Your task to perform on an android device: snooze an email in the gmail app Image 0: 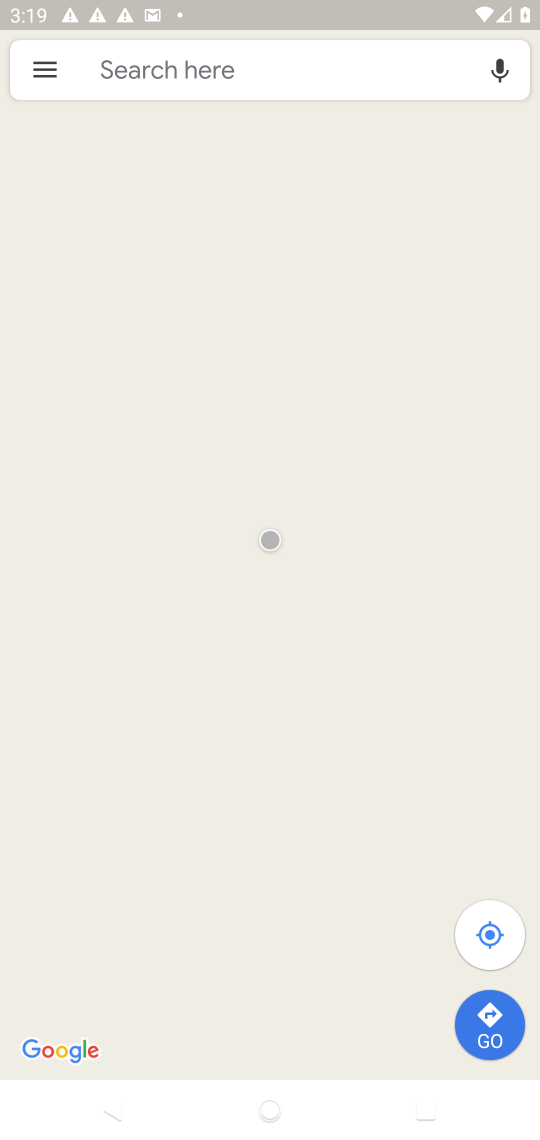
Step 0: press home button
Your task to perform on an android device: snooze an email in the gmail app Image 1: 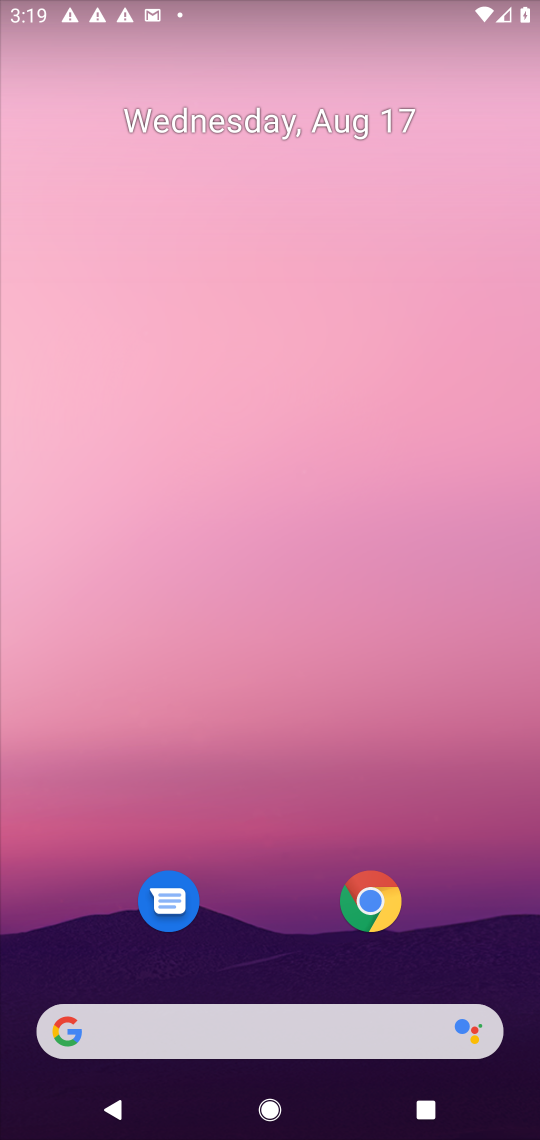
Step 1: drag from (261, 1029) to (360, 374)
Your task to perform on an android device: snooze an email in the gmail app Image 2: 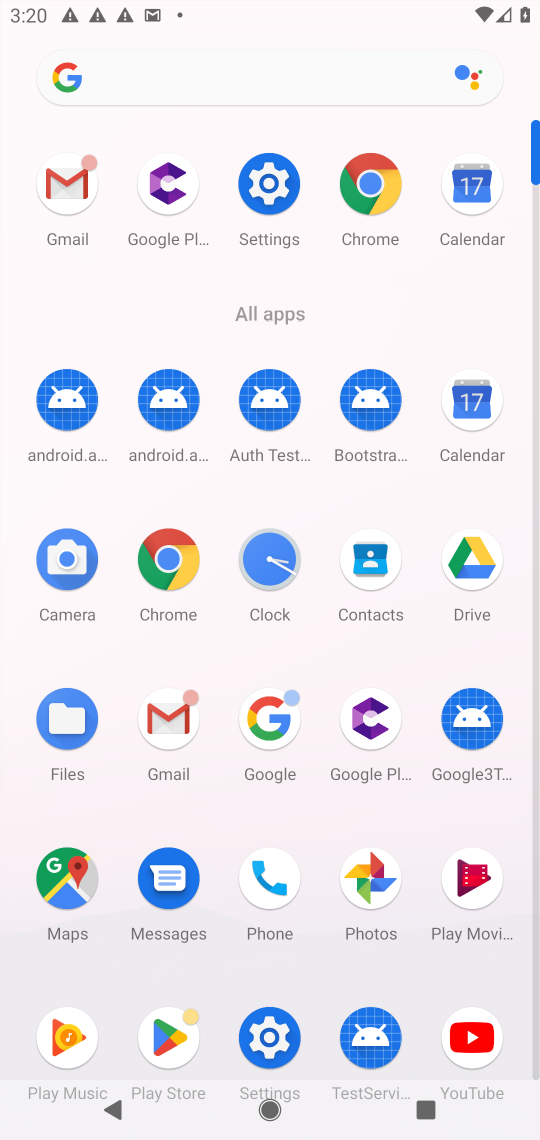
Step 2: click (176, 728)
Your task to perform on an android device: snooze an email in the gmail app Image 3: 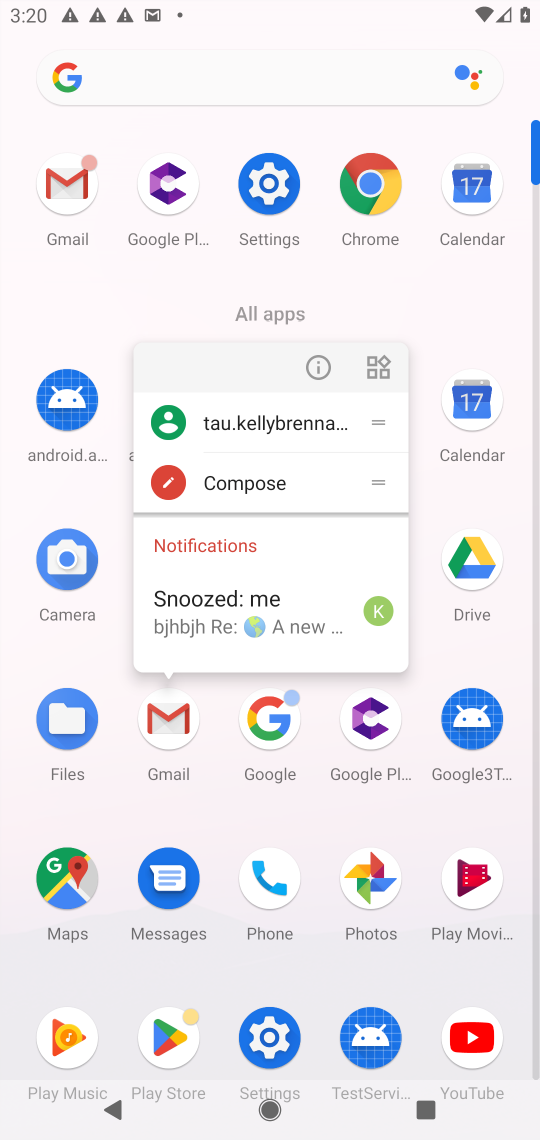
Step 3: click (176, 728)
Your task to perform on an android device: snooze an email in the gmail app Image 4: 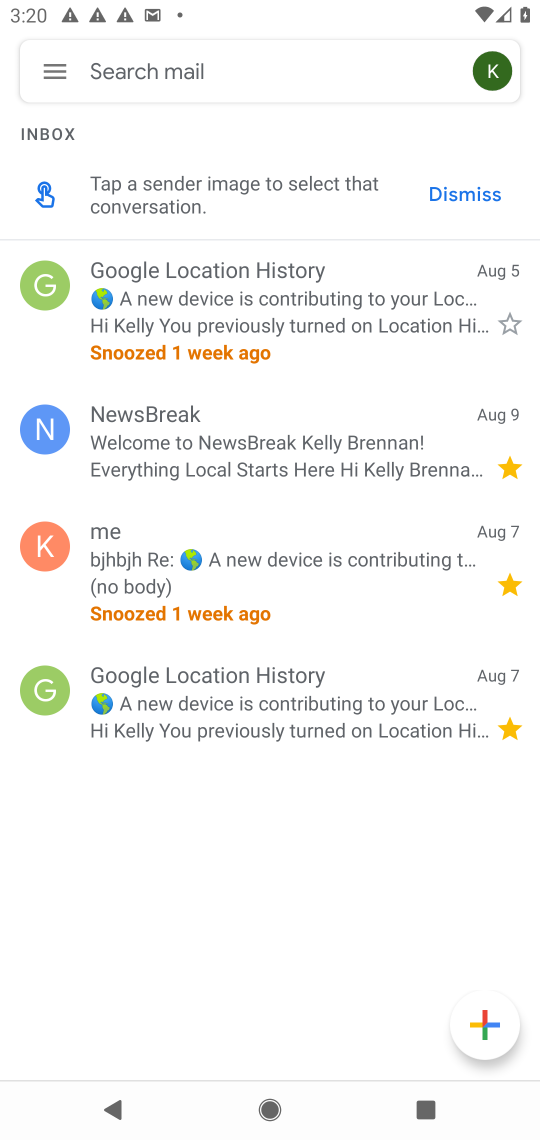
Step 4: click (45, 75)
Your task to perform on an android device: snooze an email in the gmail app Image 5: 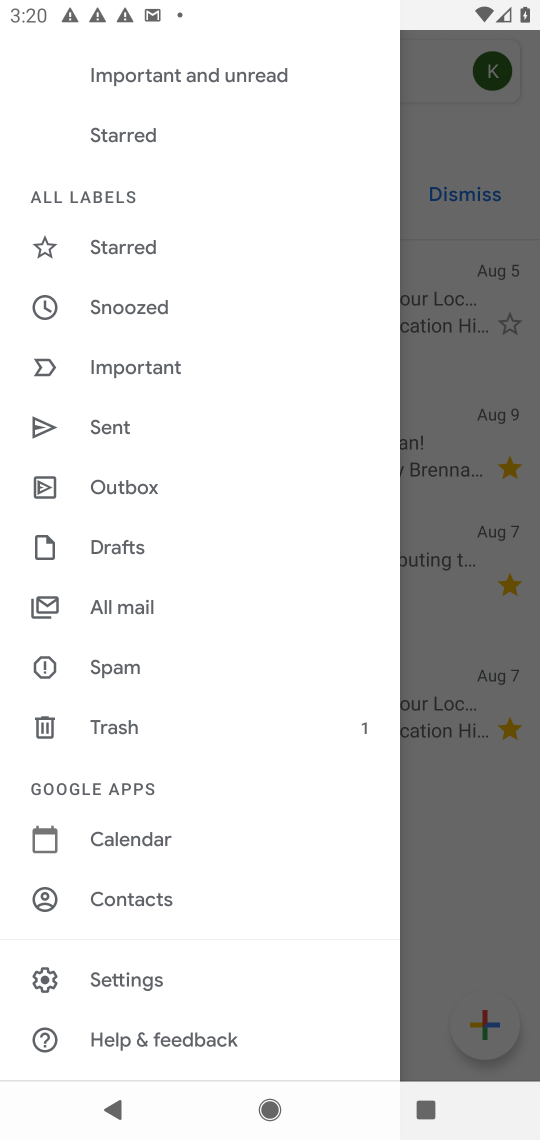
Step 5: click (125, 302)
Your task to perform on an android device: snooze an email in the gmail app Image 6: 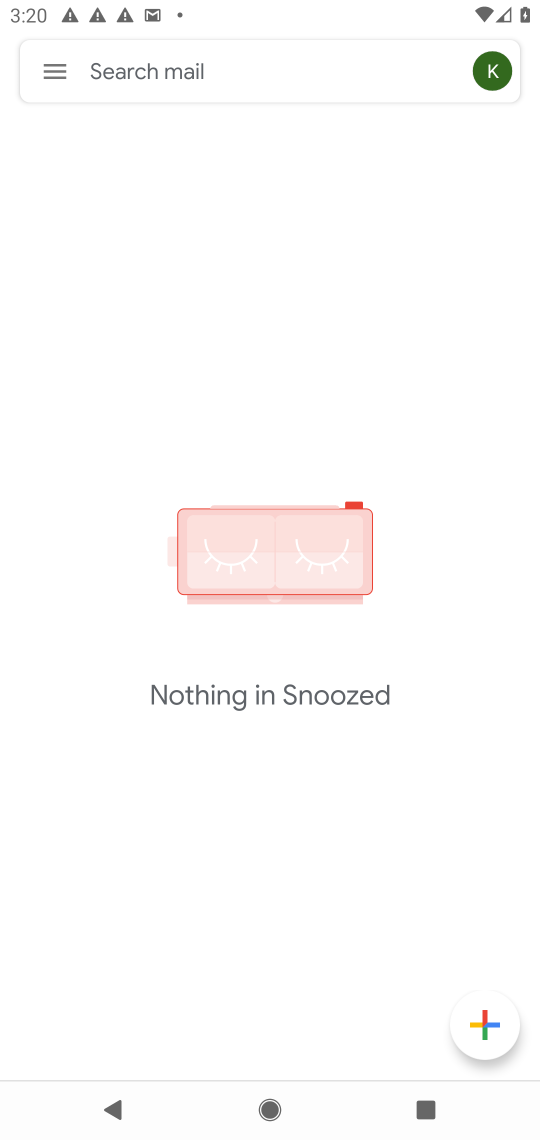
Step 6: task complete